Your task to perform on an android device: What is the capital of Japan? Image 0: 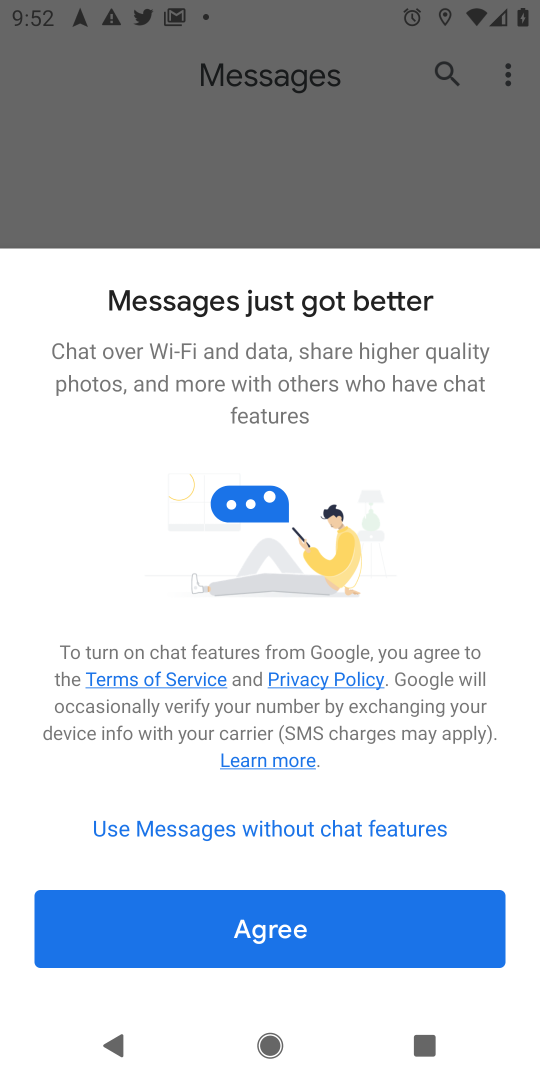
Step 0: press home button
Your task to perform on an android device: What is the capital of Japan? Image 1: 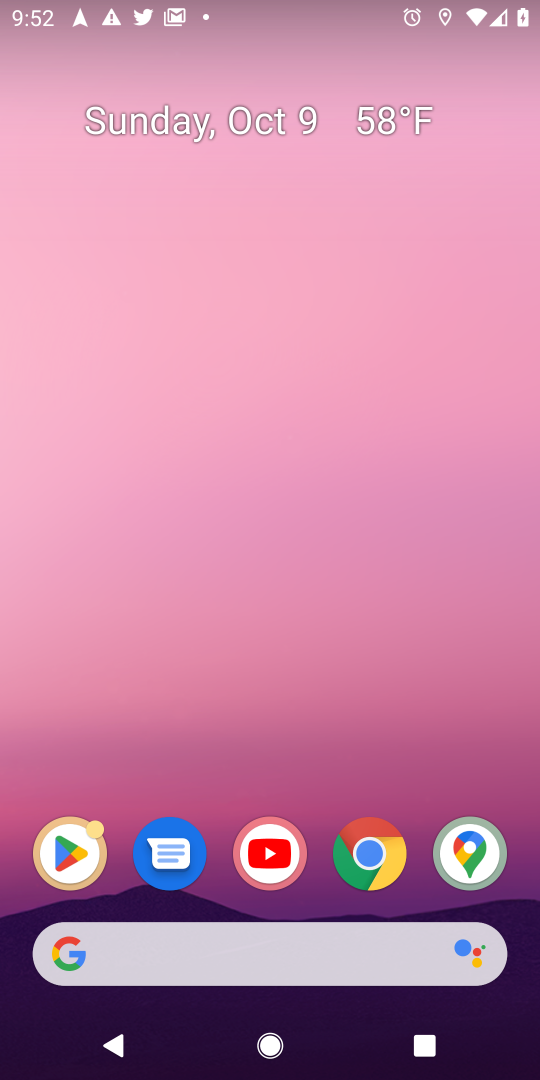
Step 1: click (369, 871)
Your task to perform on an android device: What is the capital of Japan? Image 2: 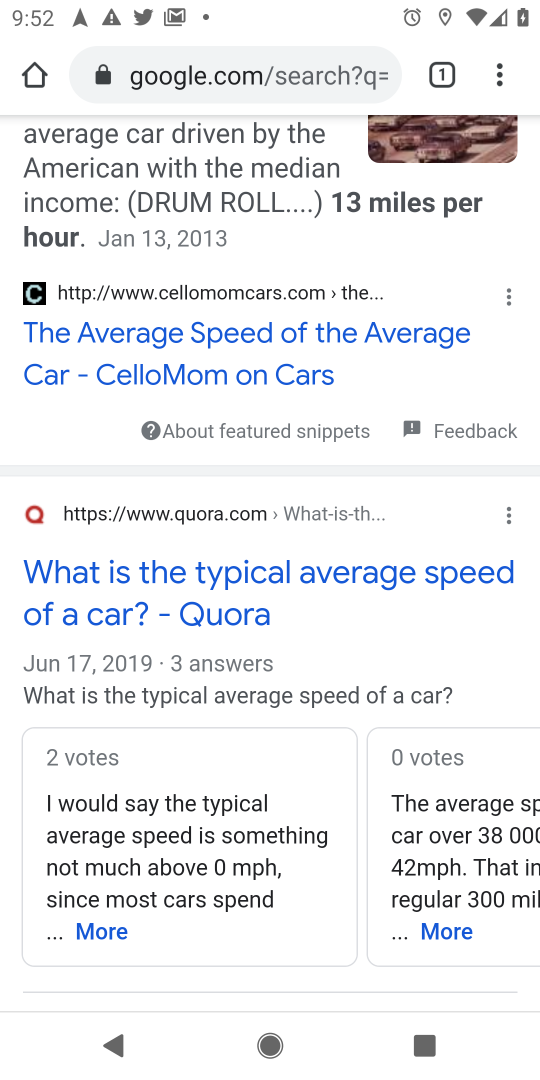
Step 2: click (270, 78)
Your task to perform on an android device: What is the capital of Japan? Image 3: 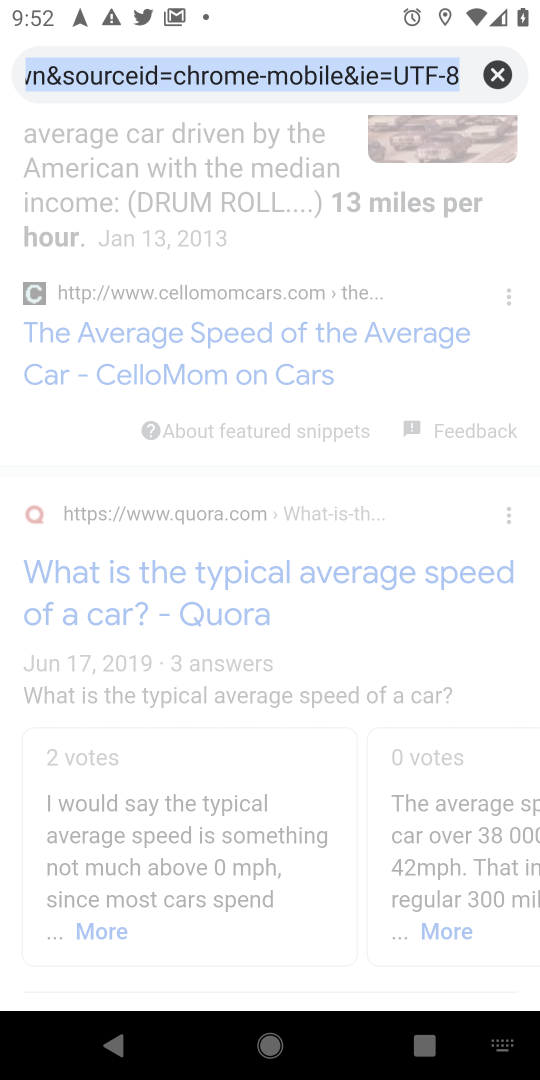
Step 3: type "capital of japan"
Your task to perform on an android device: What is the capital of Japan? Image 4: 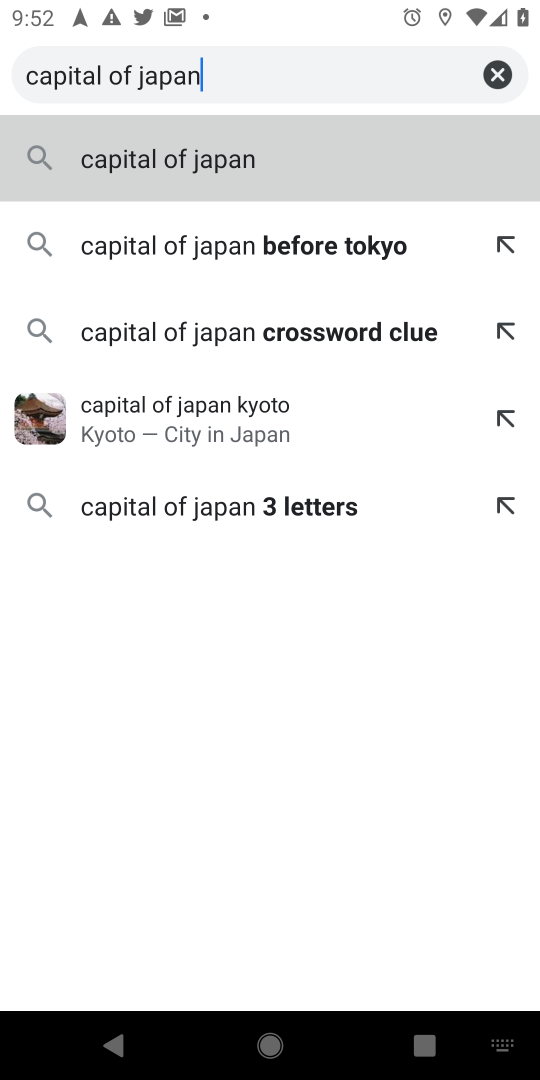
Step 4: click (360, 153)
Your task to perform on an android device: What is the capital of Japan? Image 5: 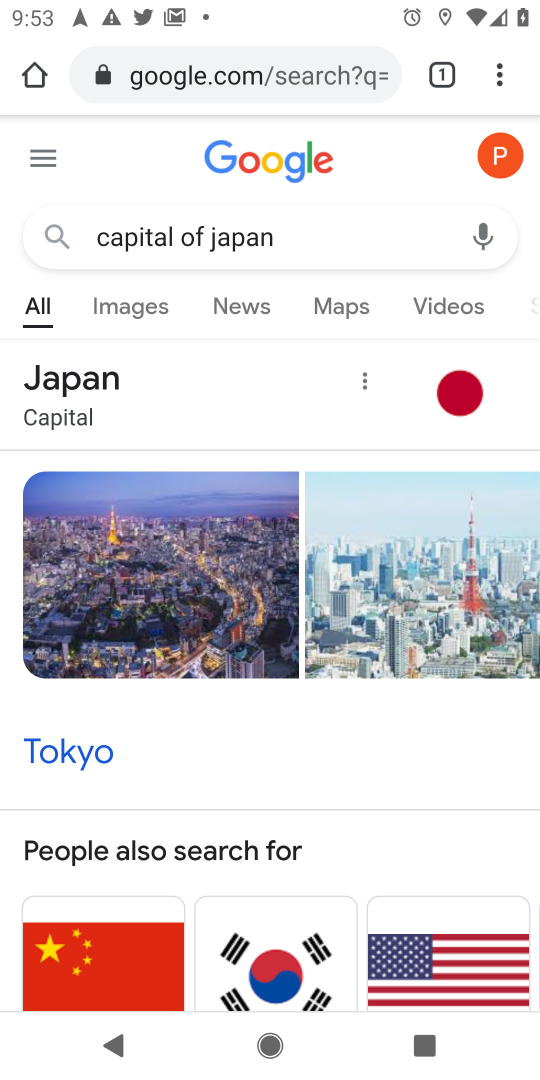
Step 5: task complete